Your task to perform on an android device: What is the capital of China? Image 0: 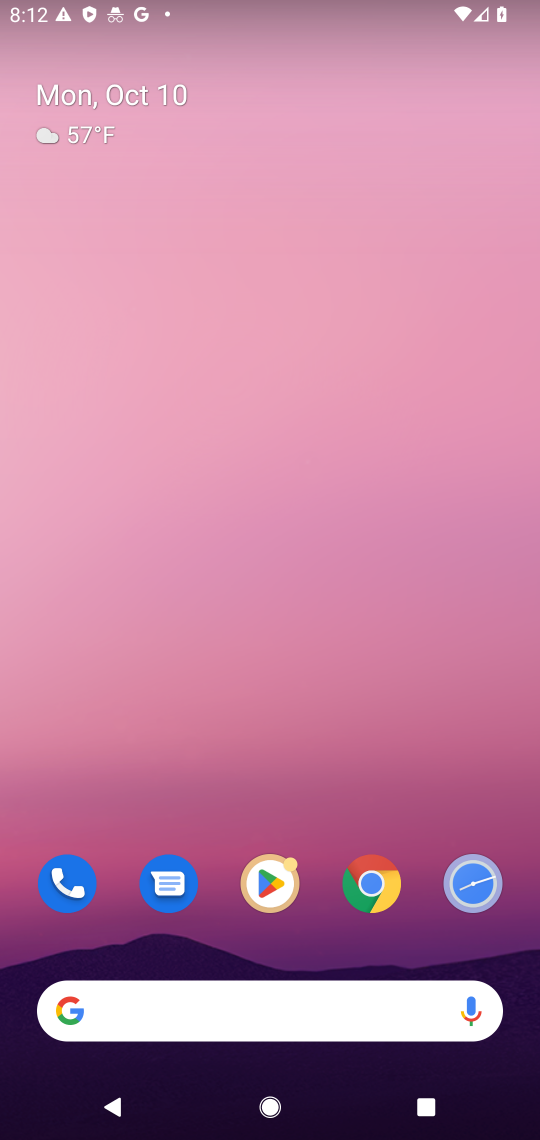
Step 0: drag from (255, 920) to (268, 325)
Your task to perform on an android device: What is the capital of China? Image 1: 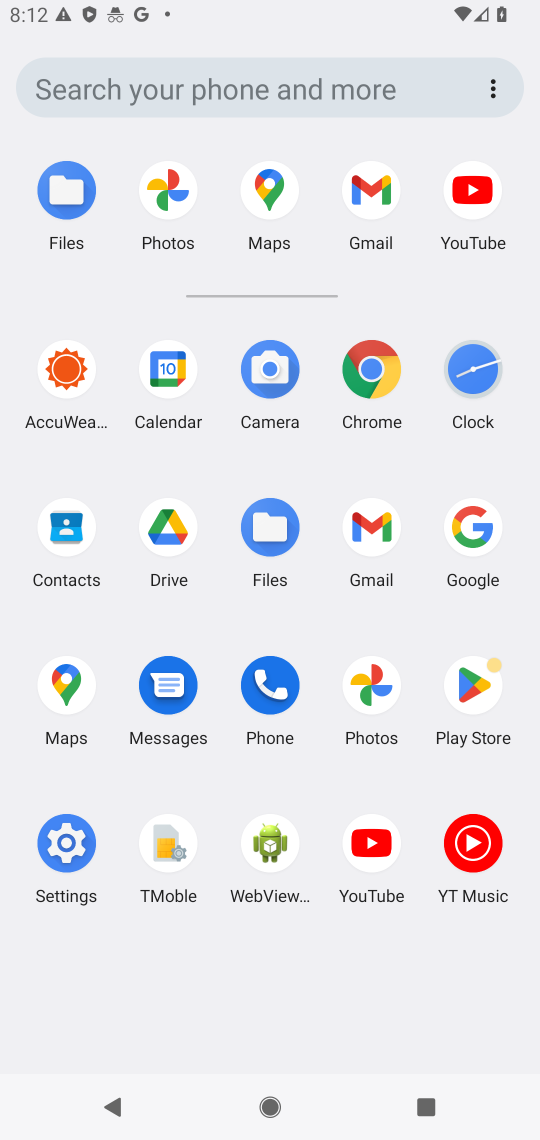
Step 1: click (456, 553)
Your task to perform on an android device: What is the capital of China? Image 2: 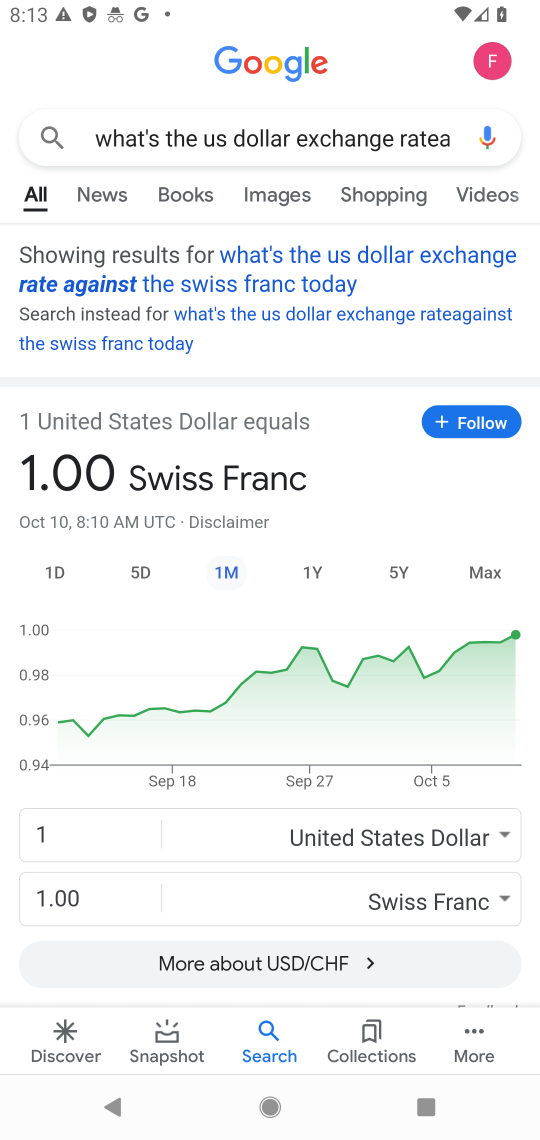
Step 2: click (357, 140)
Your task to perform on an android device: What is the capital of China? Image 3: 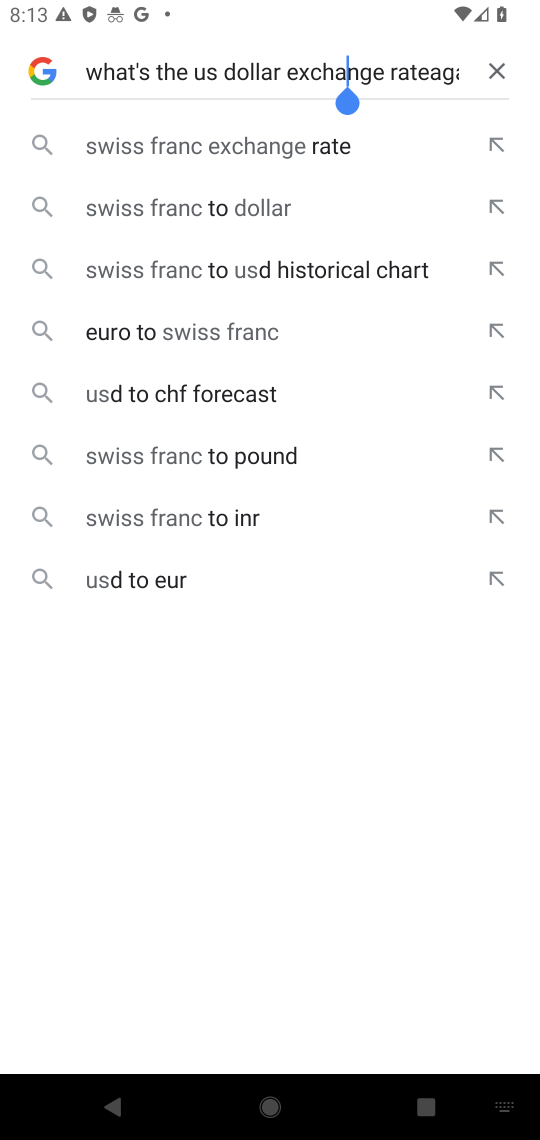
Step 3: click (497, 62)
Your task to perform on an android device: What is the capital of China? Image 4: 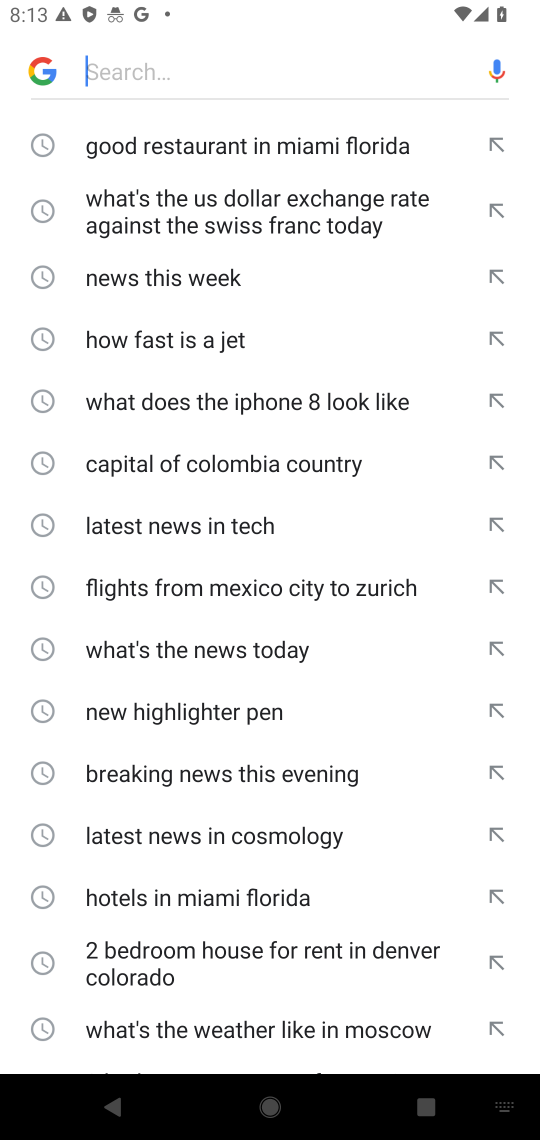
Step 4: type "capital of China"
Your task to perform on an android device: What is the capital of China? Image 5: 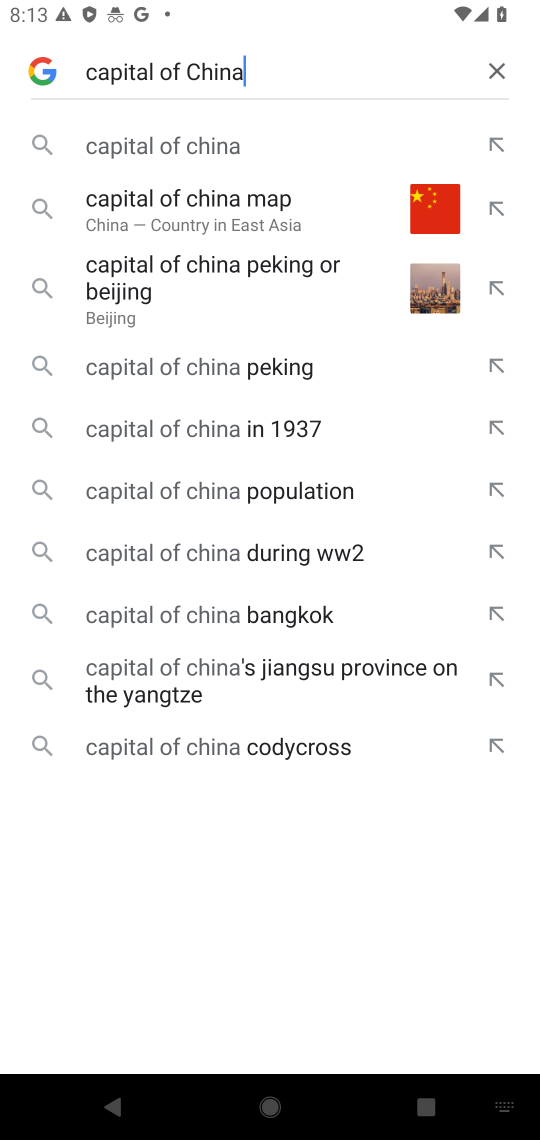
Step 5: click (237, 152)
Your task to perform on an android device: What is the capital of China? Image 6: 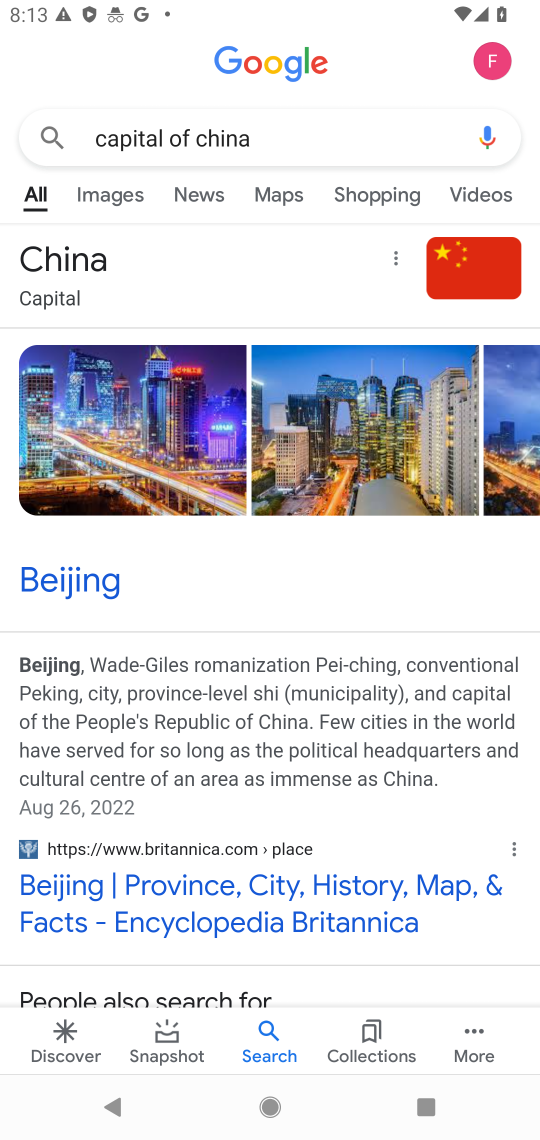
Step 6: task complete